Your task to perform on an android device: open chrome privacy settings Image 0: 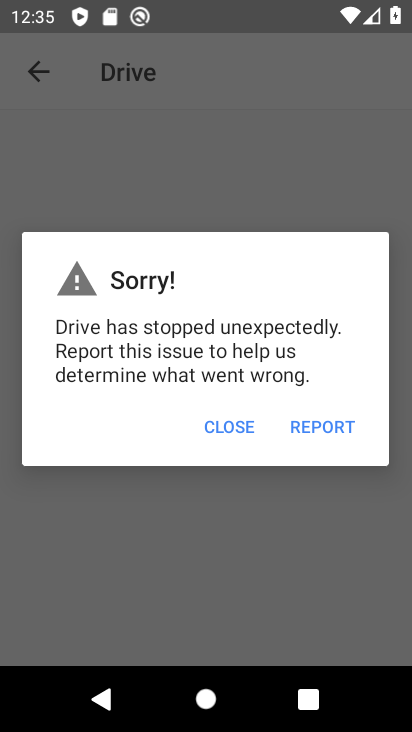
Step 0: press home button
Your task to perform on an android device: open chrome privacy settings Image 1: 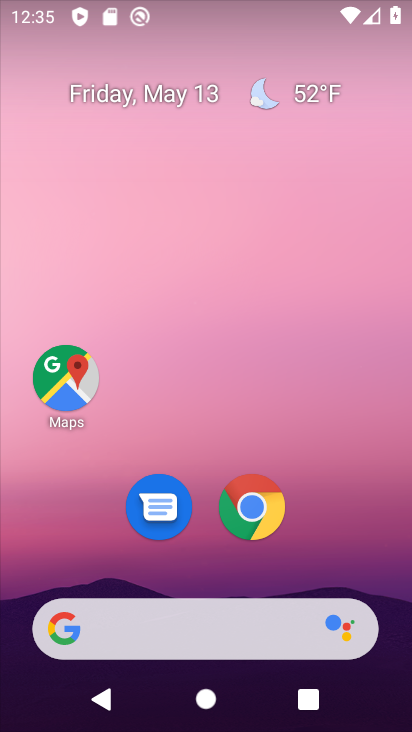
Step 1: click (255, 513)
Your task to perform on an android device: open chrome privacy settings Image 2: 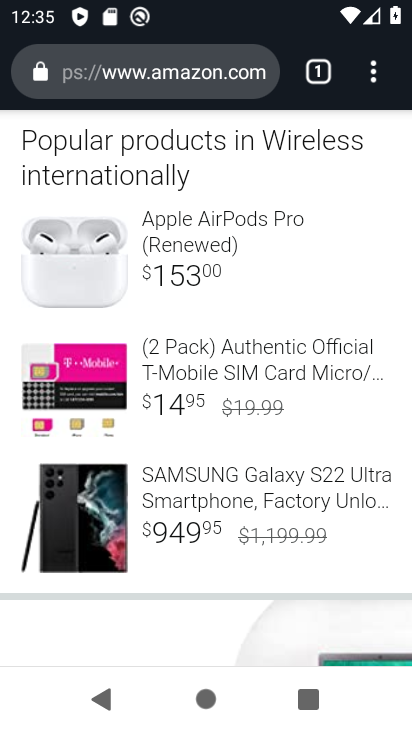
Step 2: click (374, 69)
Your task to perform on an android device: open chrome privacy settings Image 3: 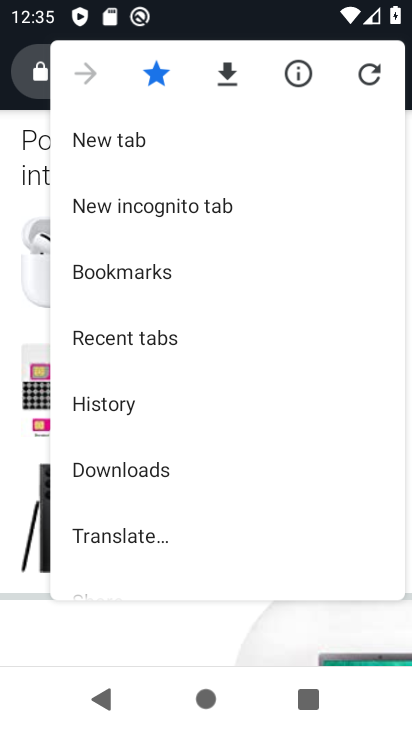
Step 3: drag from (159, 557) to (203, 161)
Your task to perform on an android device: open chrome privacy settings Image 4: 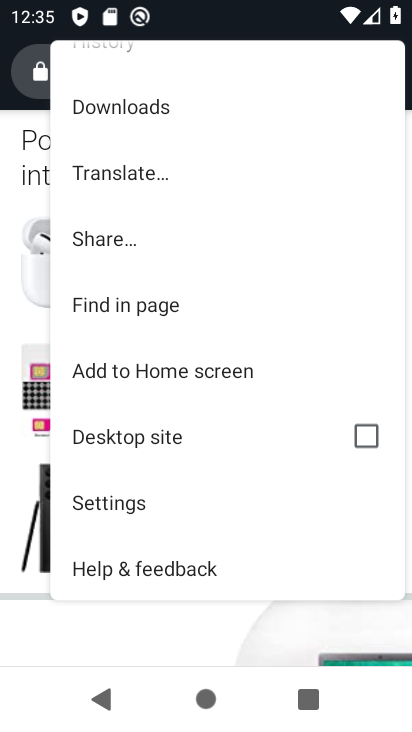
Step 4: click (106, 515)
Your task to perform on an android device: open chrome privacy settings Image 5: 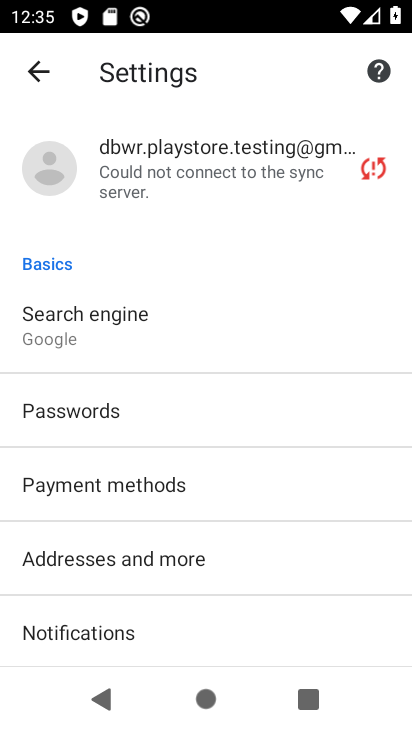
Step 5: drag from (126, 630) to (225, 279)
Your task to perform on an android device: open chrome privacy settings Image 6: 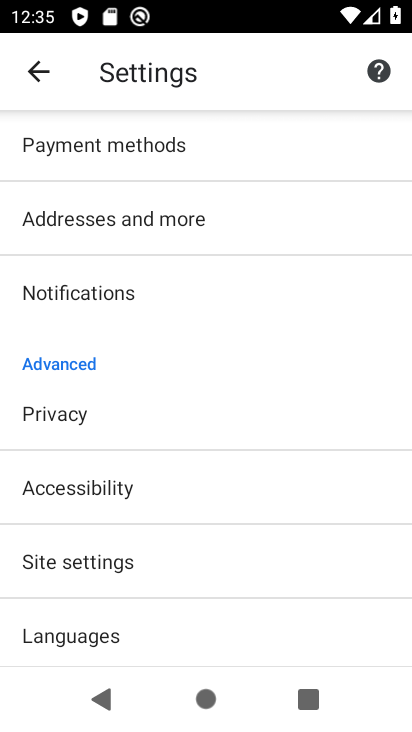
Step 6: click (85, 421)
Your task to perform on an android device: open chrome privacy settings Image 7: 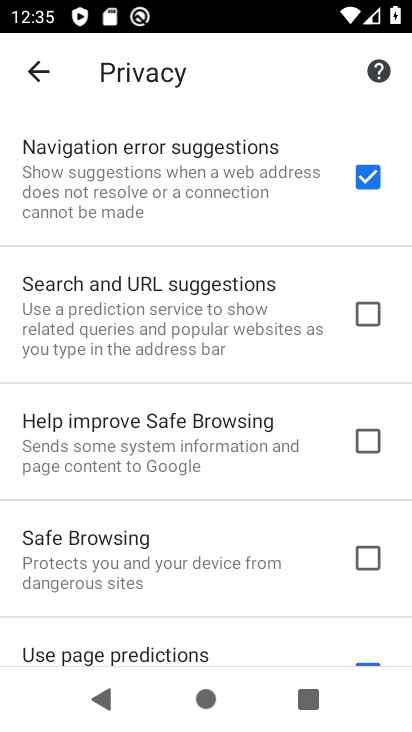
Step 7: task complete